Your task to perform on an android device: Check the news Image 0: 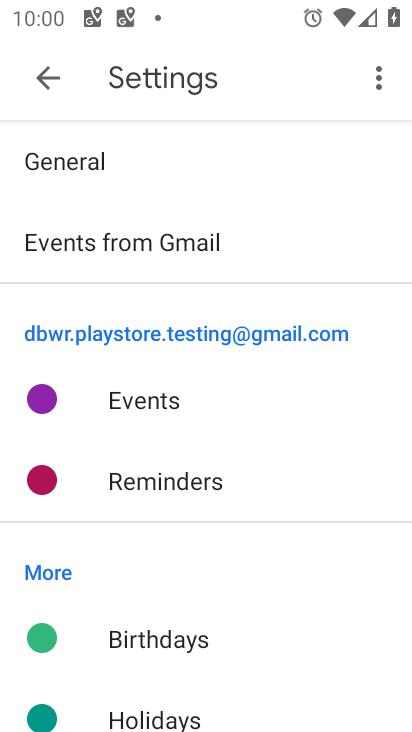
Step 0: press home button
Your task to perform on an android device: Check the news Image 1: 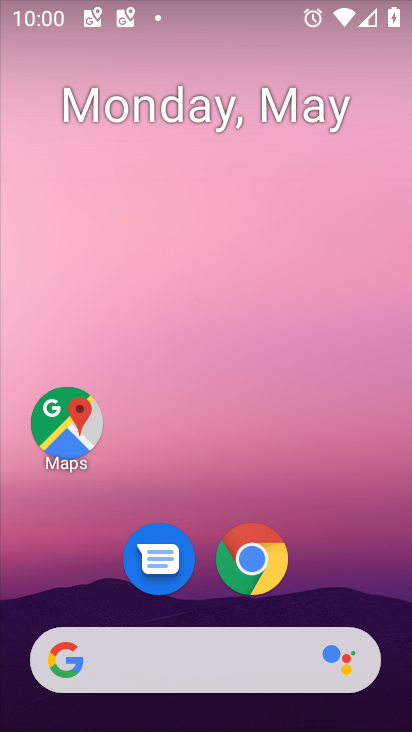
Step 1: drag from (406, 655) to (279, 128)
Your task to perform on an android device: Check the news Image 2: 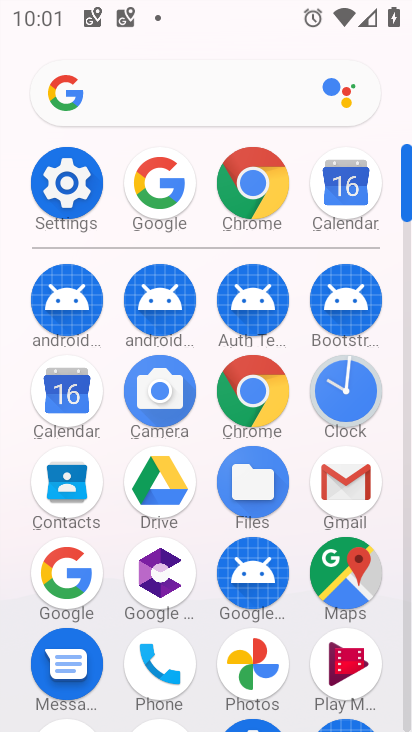
Step 2: click (63, 578)
Your task to perform on an android device: Check the news Image 3: 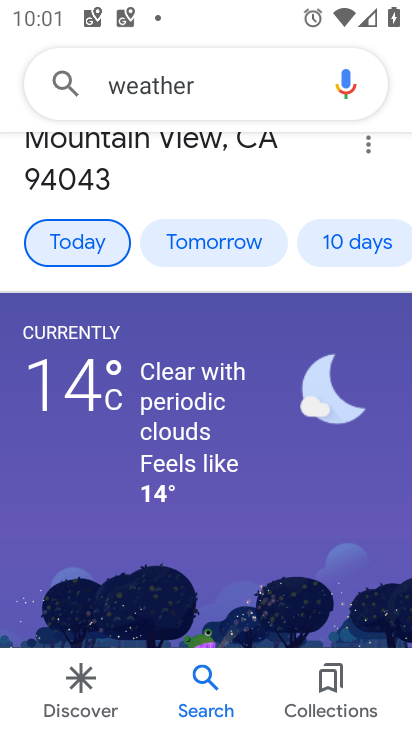
Step 3: press back button
Your task to perform on an android device: Check the news Image 4: 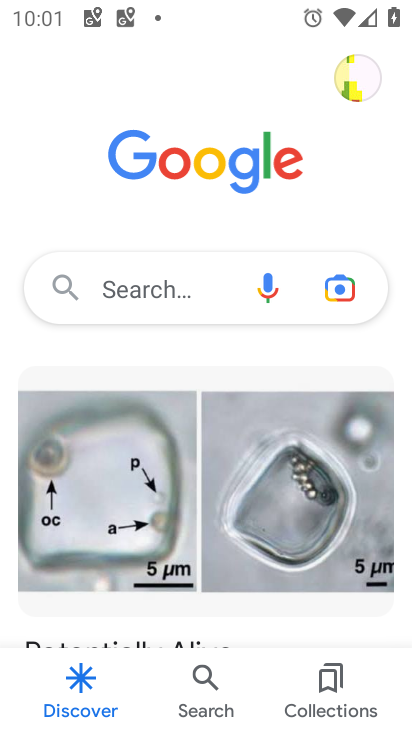
Step 4: click (174, 270)
Your task to perform on an android device: Check the news Image 5: 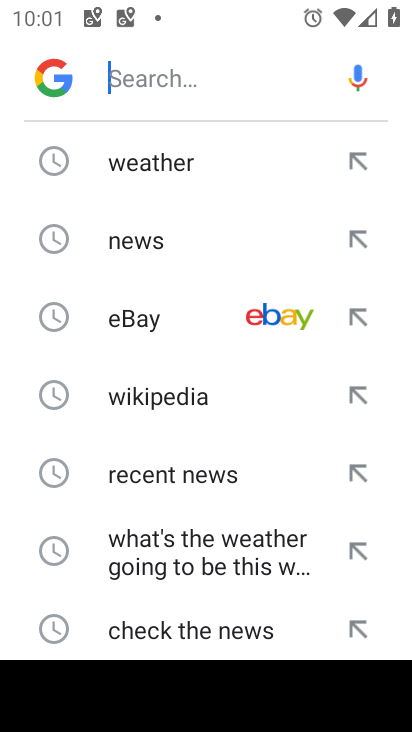
Step 5: click (137, 245)
Your task to perform on an android device: Check the news Image 6: 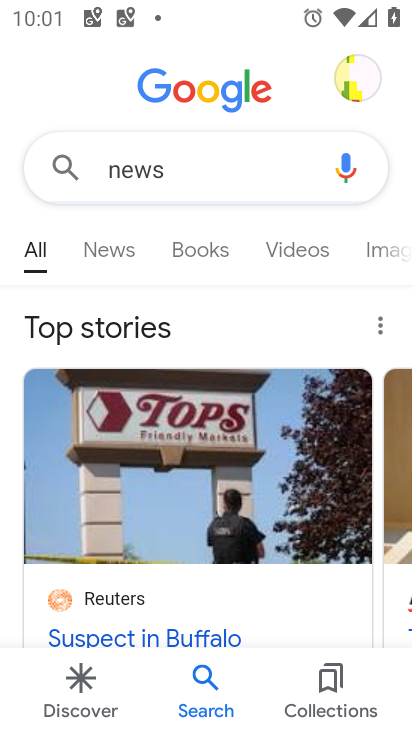
Step 6: task complete